Your task to perform on an android device: Open Yahoo.com Image 0: 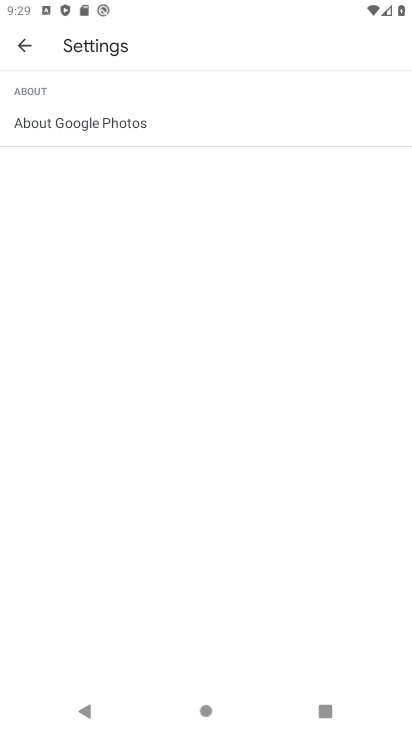
Step 0: press home button
Your task to perform on an android device: Open Yahoo.com Image 1: 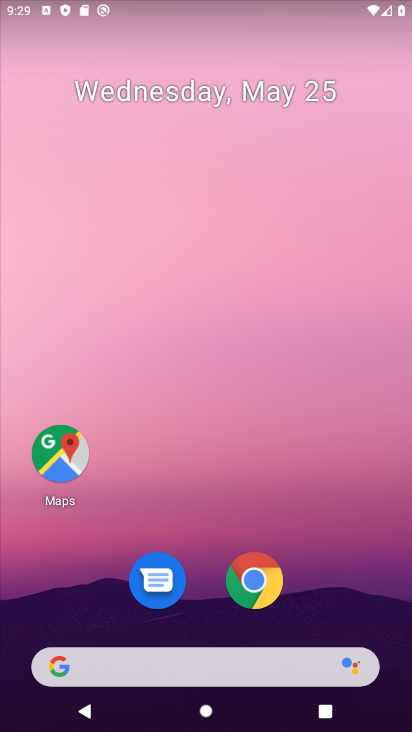
Step 1: click (251, 571)
Your task to perform on an android device: Open Yahoo.com Image 2: 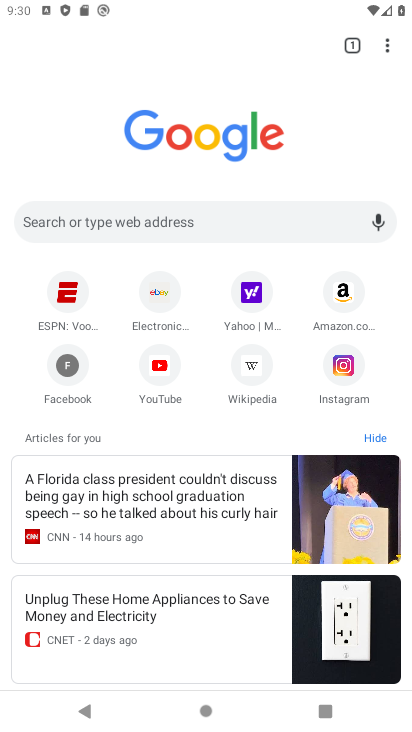
Step 2: click (246, 295)
Your task to perform on an android device: Open Yahoo.com Image 3: 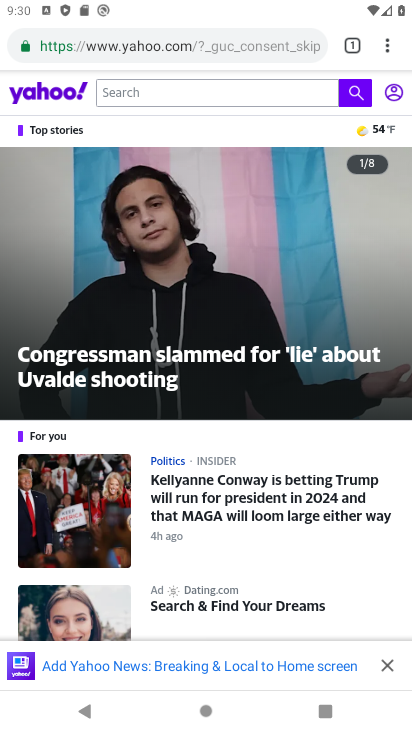
Step 3: task complete